Your task to perform on an android device: change text size in settings app Image 0: 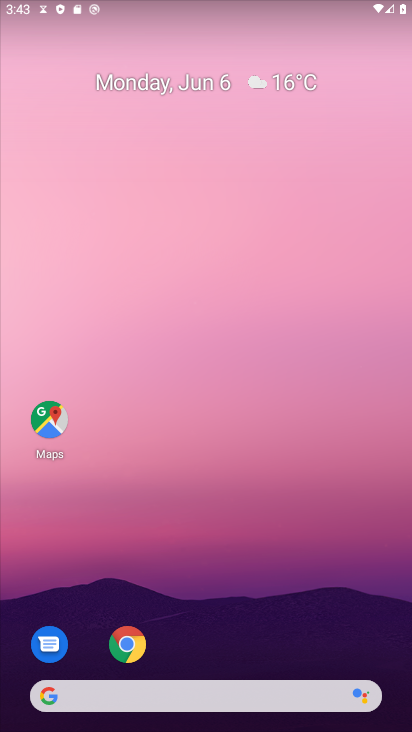
Step 0: drag from (147, 726) to (193, 132)
Your task to perform on an android device: change text size in settings app Image 1: 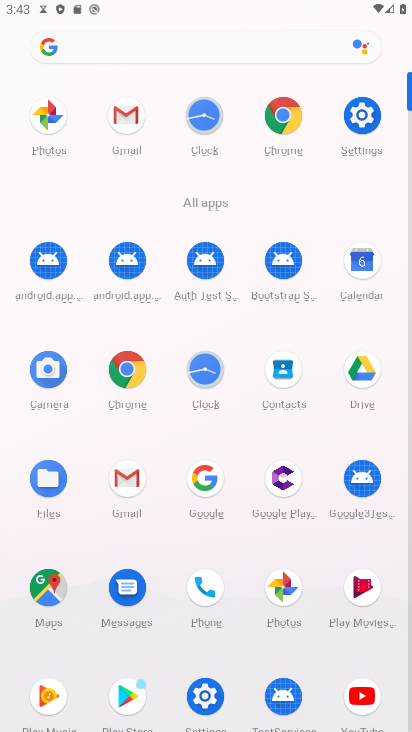
Step 1: click (209, 697)
Your task to perform on an android device: change text size in settings app Image 2: 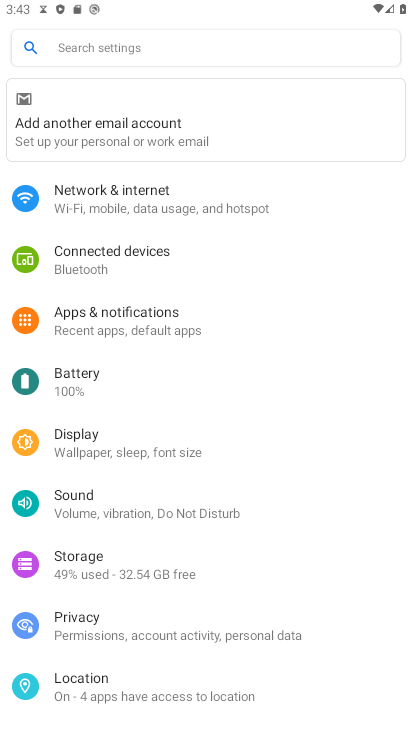
Step 2: click (174, 459)
Your task to perform on an android device: change text size in settings app Image 3: 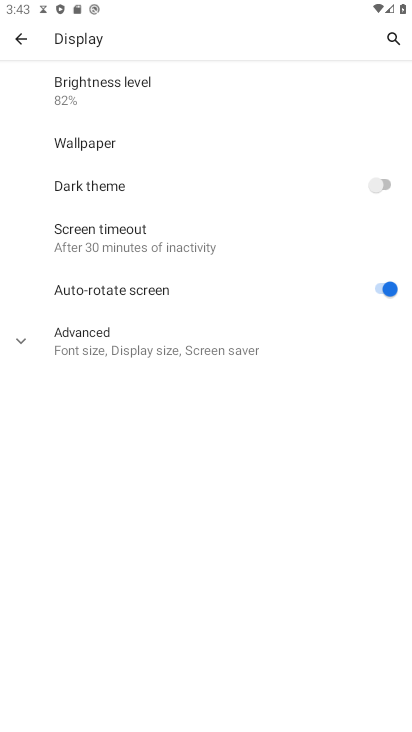
Step 3: click (88, 350)
Your task to perform on an android device: change text size in settings app Image 4: 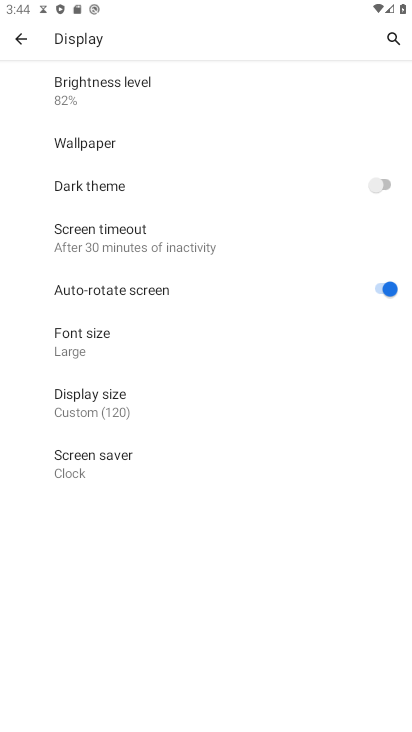
Step 4: click (104, 346)
Your task to perform on an android device: change text size in settings app Image 5: 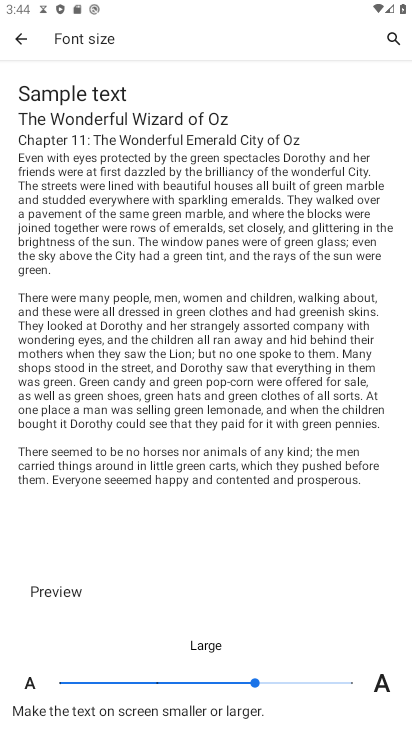
Step 5: click (162, 679)
Your task to perform on an android device: change text size in settings app Image 6: 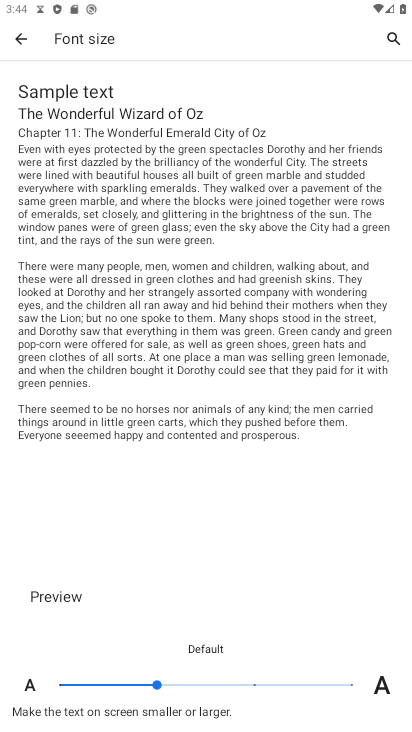
Step 6: task complete